Your task to perform on an android device: Open Maps and search for coffee Image 0: 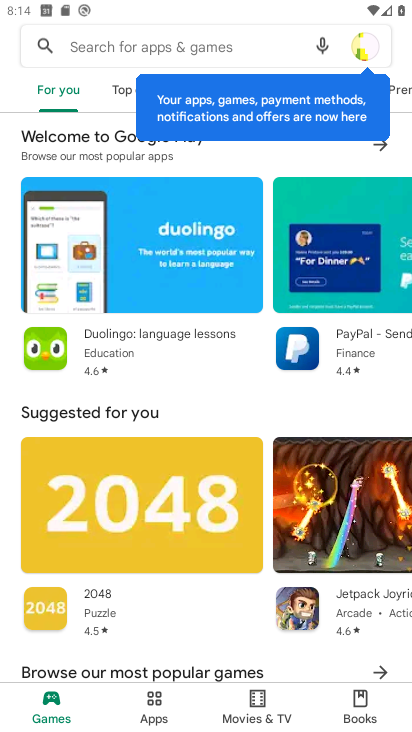
Step 0: press home button
Your task to perform on an android device: Open Maps and search for coffee Image 1: 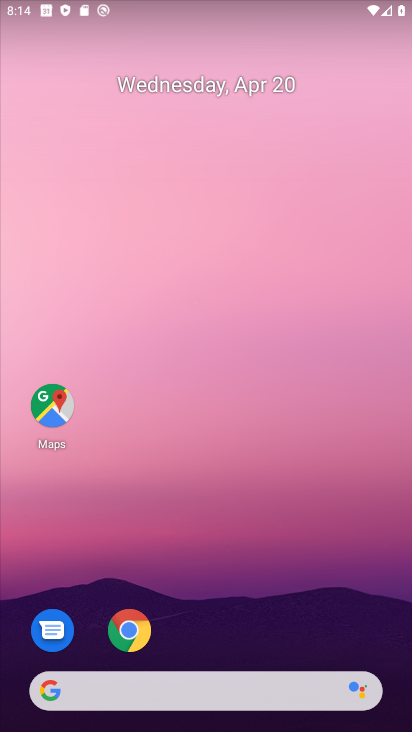
Step 1: click (47, 409)
Your task to perform on an android device: Open Maps and search for coffee Image 2: 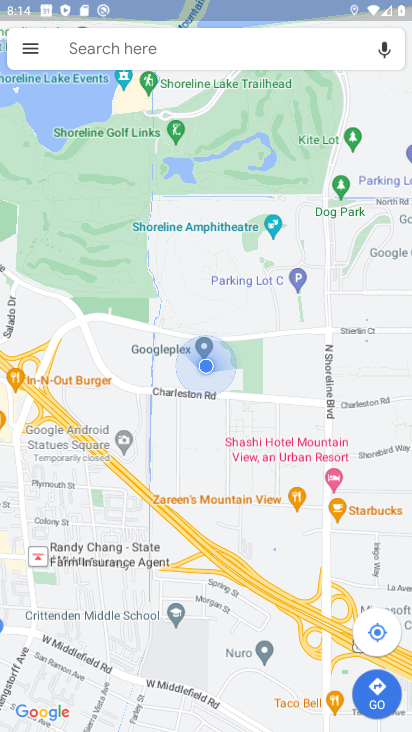
Step 2: click (197, 51)
Your task to perform on an android device: Open Maps and search for coffee Image 3: 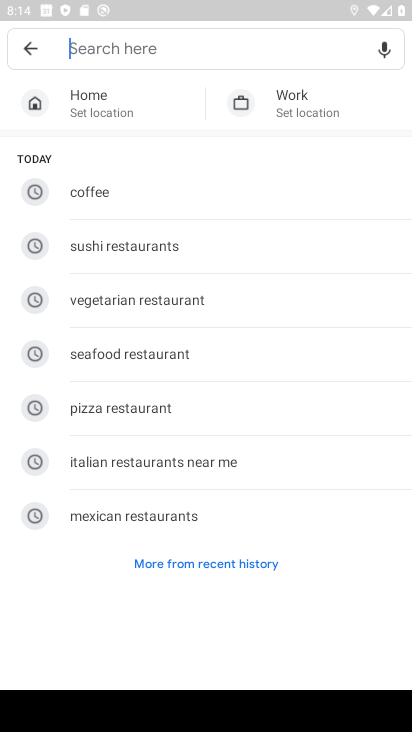
Step 3: click (116, 193)
Your task to perform on an android device: Open Maps and search for coffee Image 4: 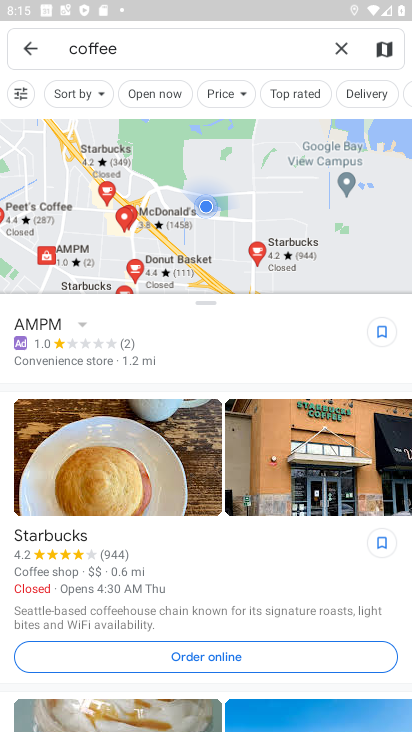
Step 4: task complete